Your task to perform on an android device: Open display settings Image 0: 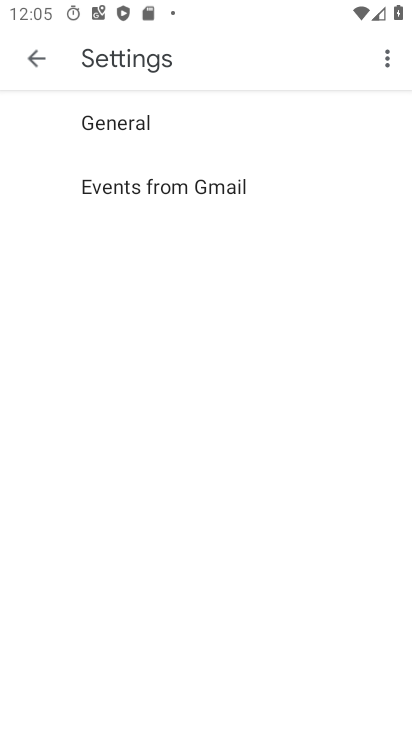
Step 0: press home button
Your task to perform on an android device: Open display settings Image 1: 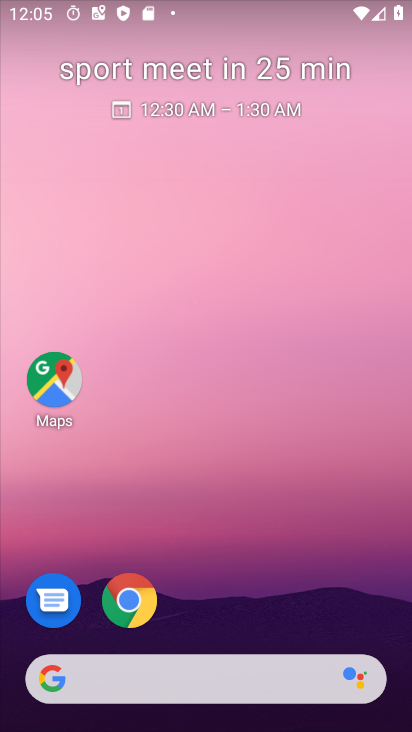
Step 1: drag from (192, 615) to (242, 36)
Your task to perform on an android device: Open display settings Image 2: 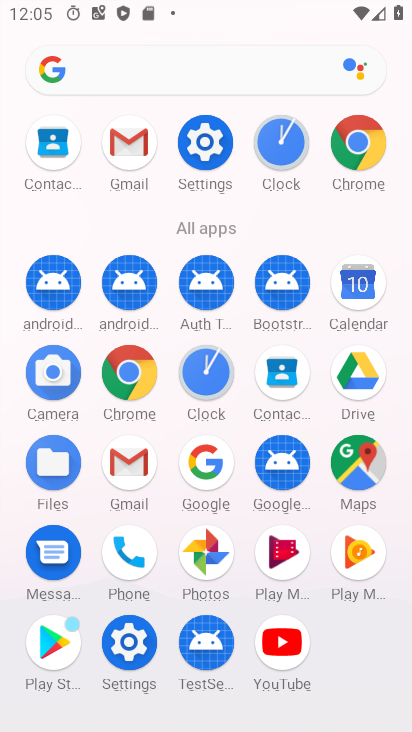
Step 2: click (205, 134)
Your task to perform on an android device: Open display settings Image 3: 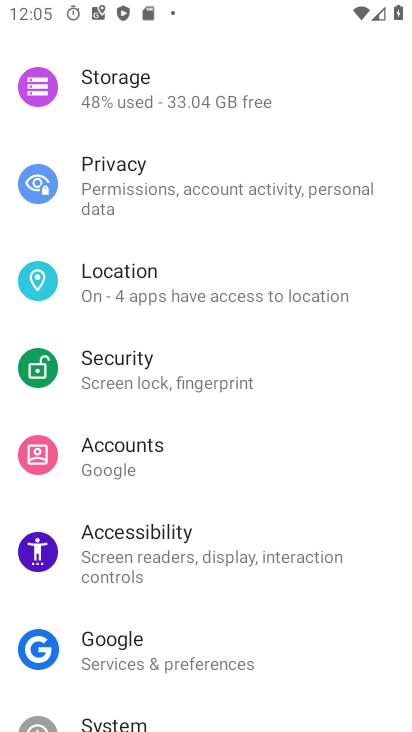
Step 3: drag from (174, 650) to (212, 320)
Your task to perform on an android device: Open display settings Image 4: 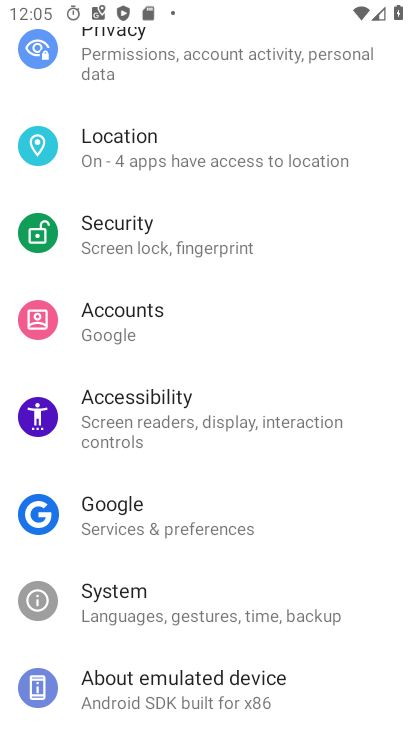
Step 4: click (255, 709)
Your task to perform on an android device: Open display settings Image 5: 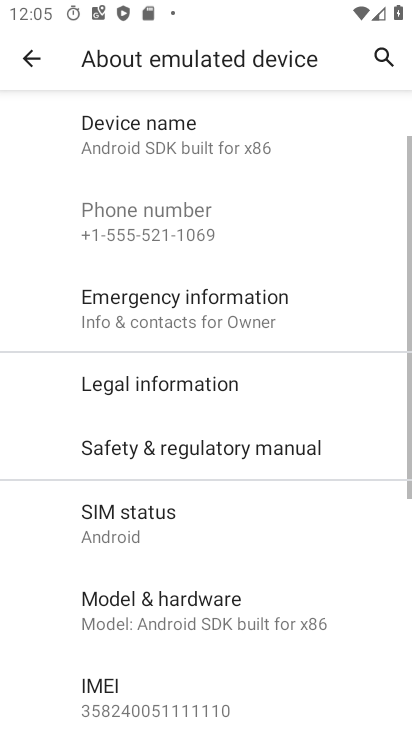
Step 5: task complete